Your task to perform on an android device: open wifi settings Image 0: 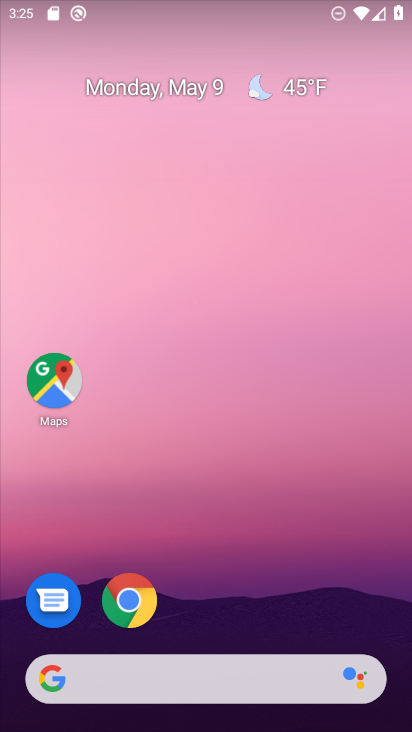
Step 0: drag from (234, 562) to (231, 0)
Your task to perform on an android device: open wifi settings Image 1: 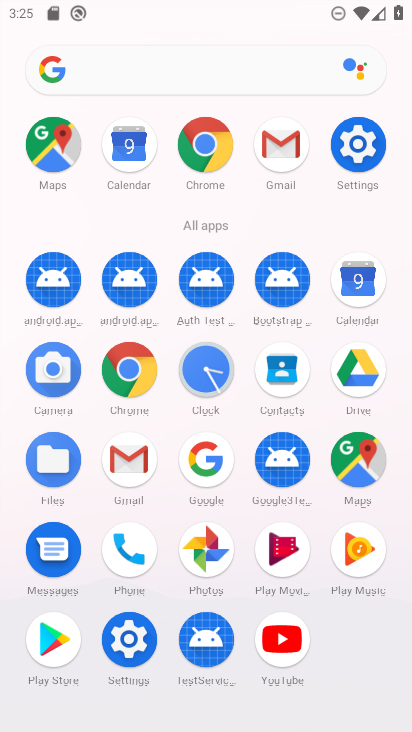
Step 1: click (360, 140)
Your task to perform on an android device: open wifi settings Image 2: 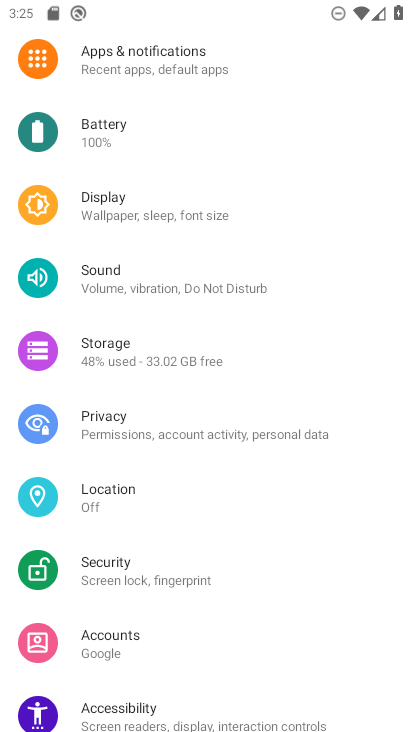
Step 2: drag from (277, 124) to (239, 594)
Your task to perform on an android device: open wifi settings Image 3: 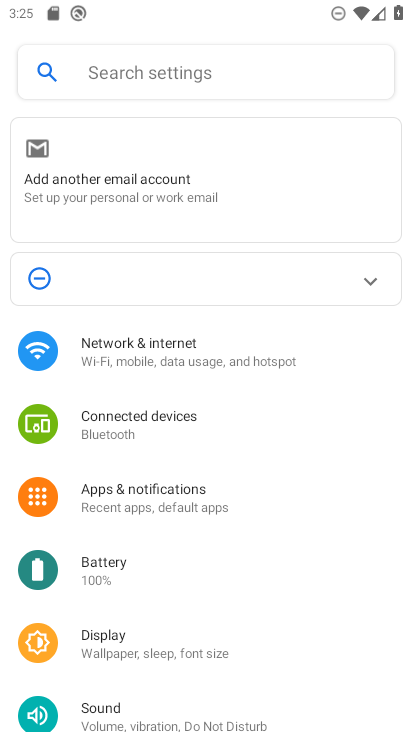
Step 3: click (212, 332)
Your task to perform on an android device: open wifi settings Image 4: 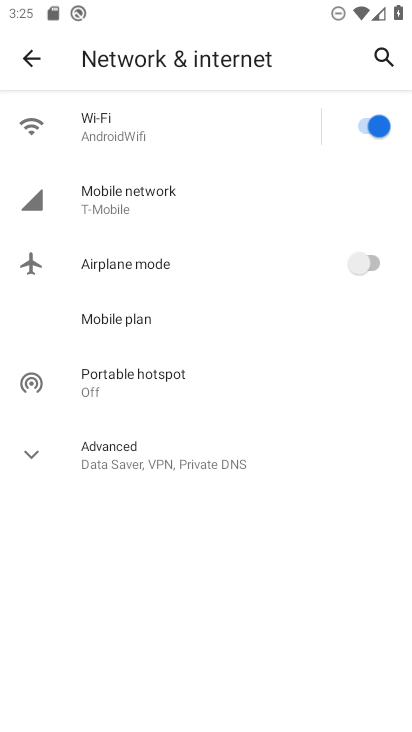
Step 4: click (27, 451)
Your task to perform on an android device: open wifi settings Image 5: 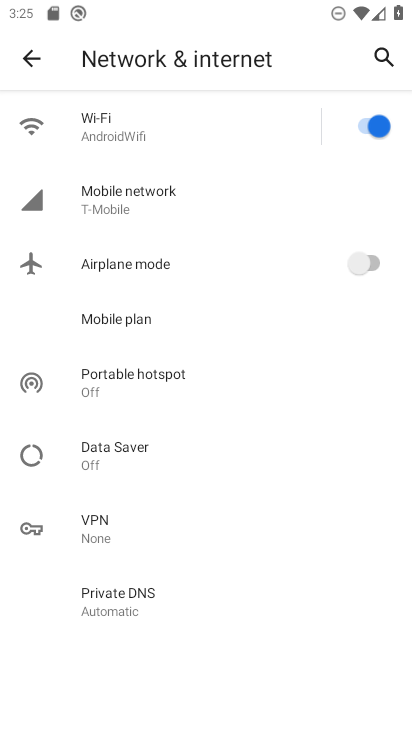
Step 5: click (186, 116)
Your task to perform on an android device: open wifi settings Image 6: 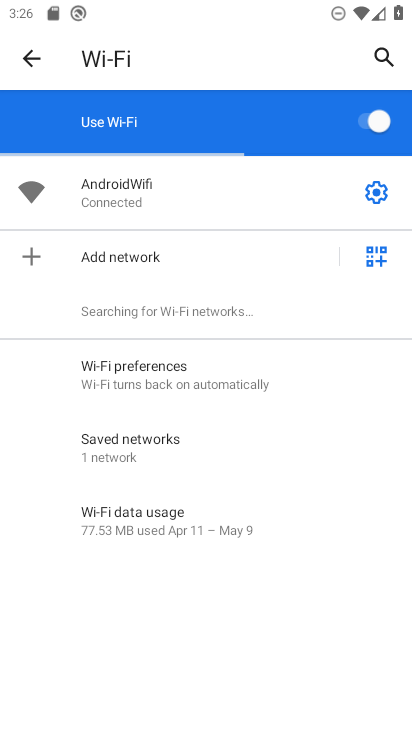
Step 6: task complete